Your task to perform on an android device: Search for "macbook air" on bestbuy.com, select the first entry, and add it to the cart. Image 0: 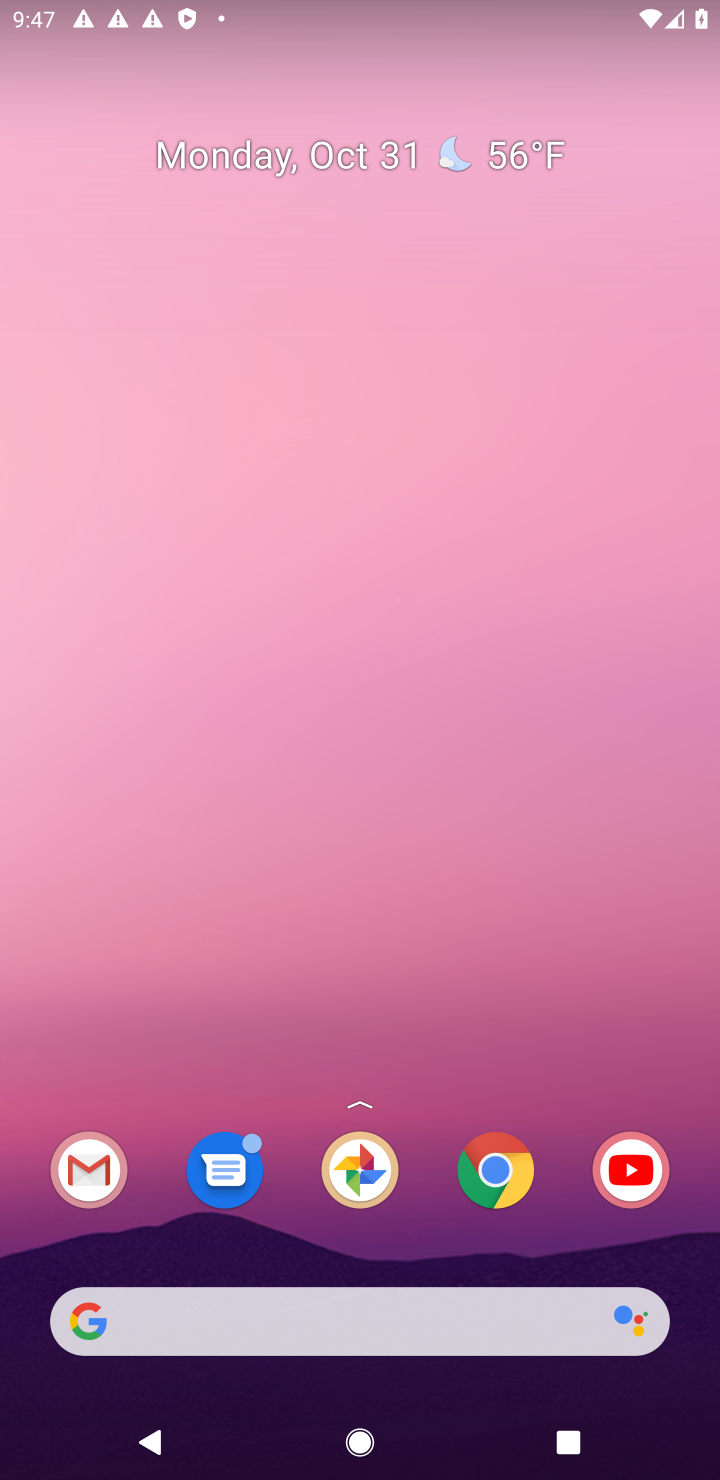
Step 0: click (268, 1302)
Your task to perform on an android device: Search for "macbook air" on bestbuy.com, select the first entry, and add it to the cart. Image 1: 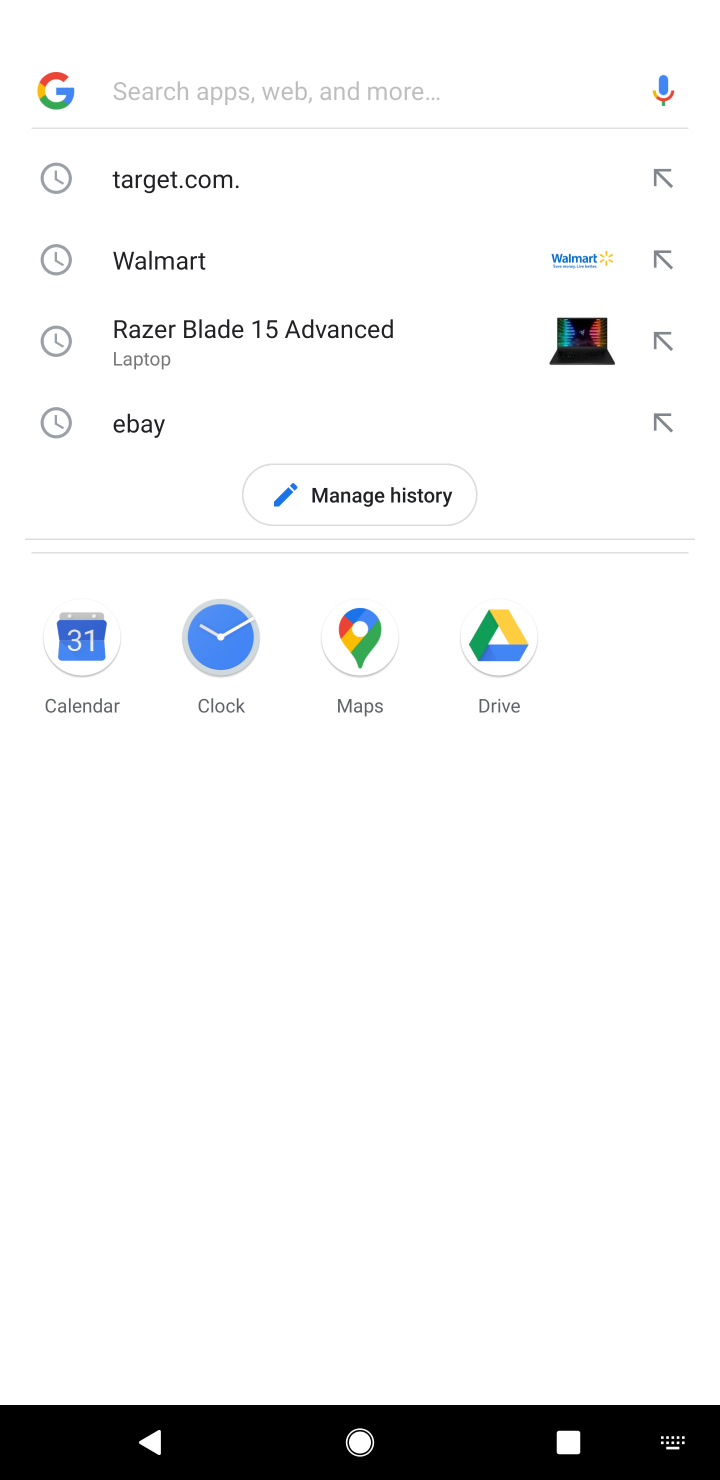
Step 1: type "bestbuy.com"
Your task to perform on an android device: Search for "macbook air" on bestbuy.com, select the first entry, and add it to the cart. Image 2: 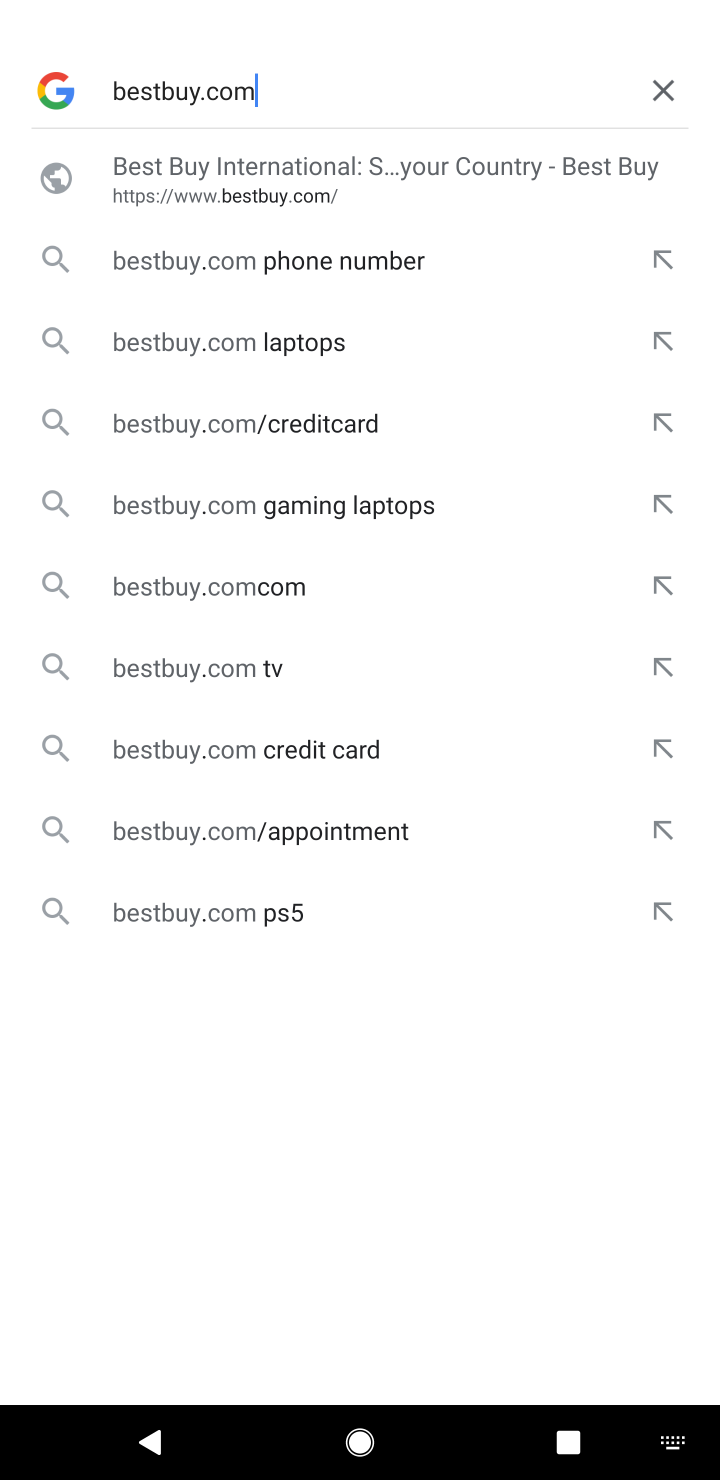
Step 2: click (215, 180)
Your task to perform on an android device: Search for "macbook air" on bestbuy.com, select the first entry, and add it to the cart. Image 3: 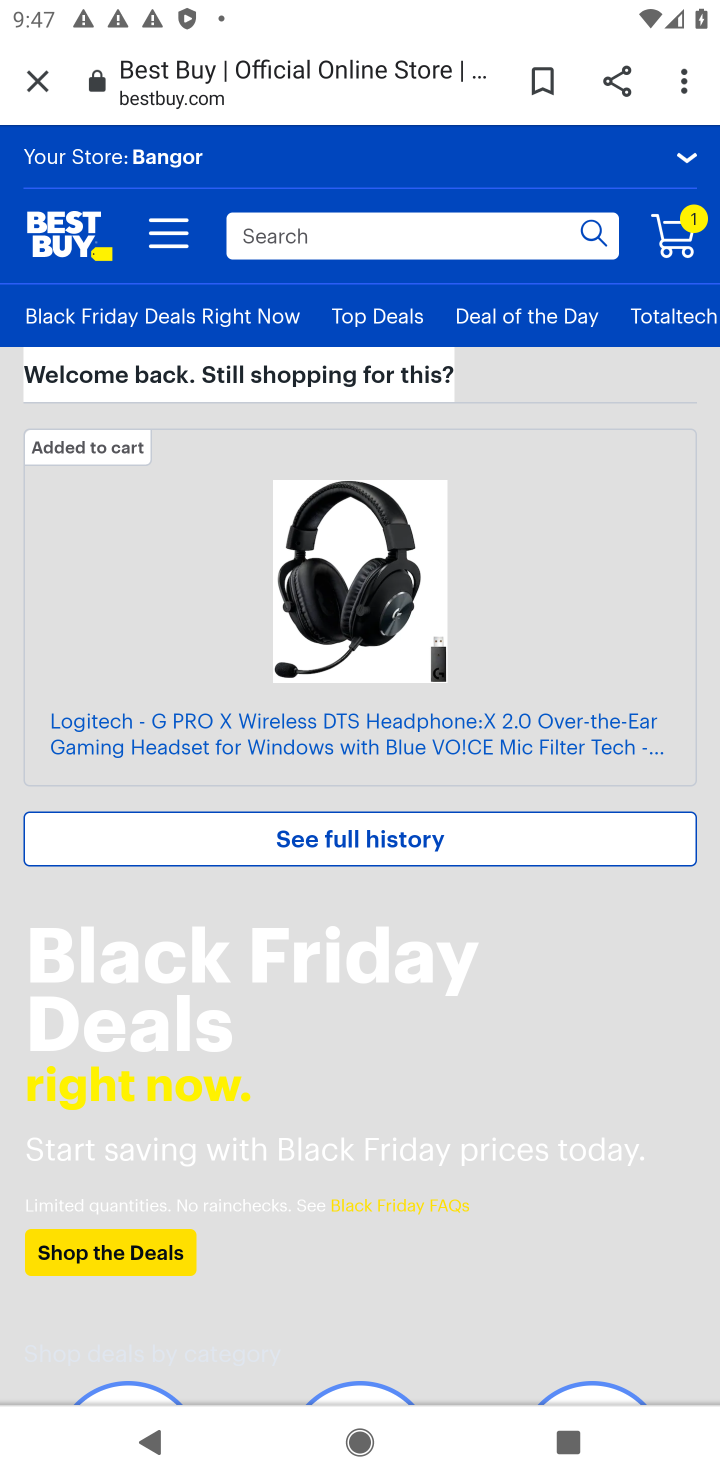
Step 3: click (383, 236)
Your task to perform on an android device: Search for "macbook air" on bestbuy.com, select the first entry, and add it to the cart. Image 4: 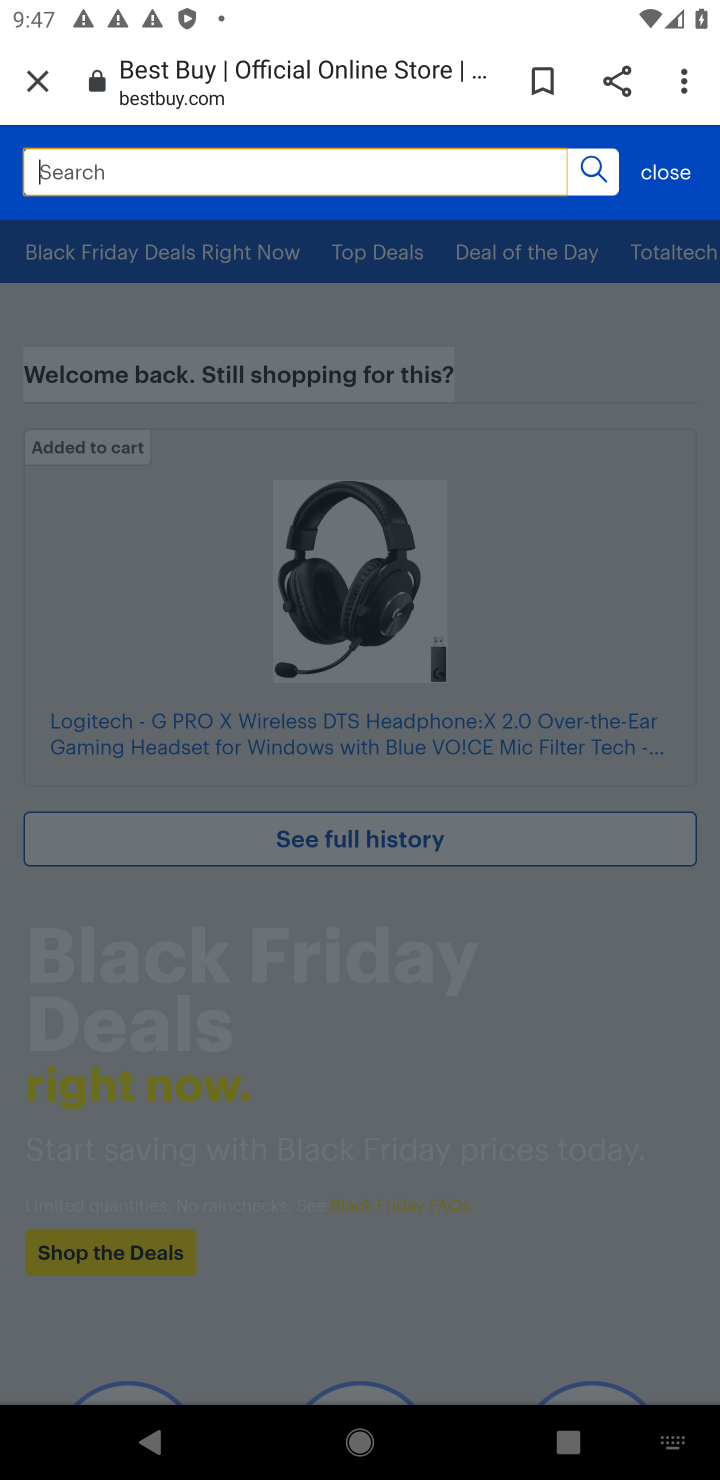
Step 4: type "macbook air"
Your task to perform on an android device: Search for "macbook air" on bestbuy.com, select the first entry, and add it to the cart. Image 5: 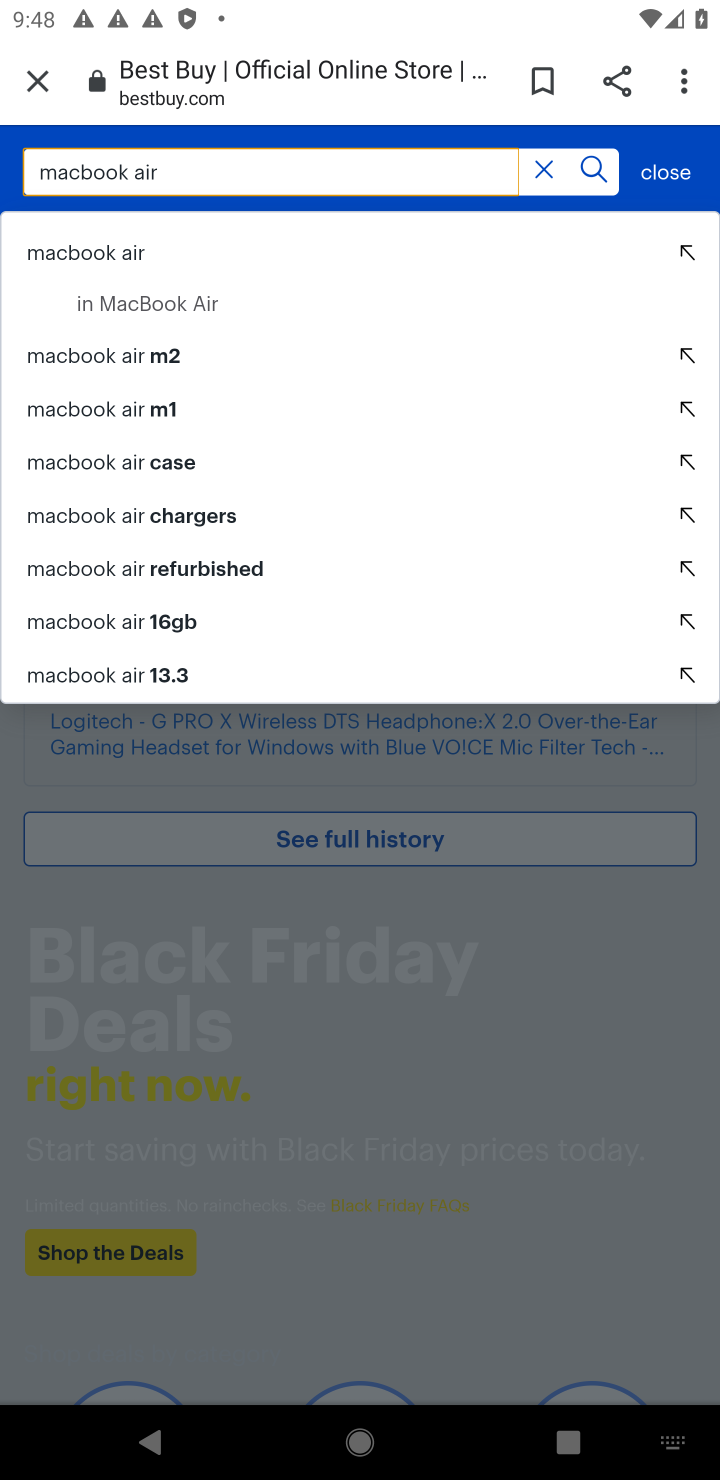
Step 5: click (121, 243)
Your task to perform on an android device: Search for "macbook air" on bestbuy.com, select the first entry, and add it to the cart. Image 6: 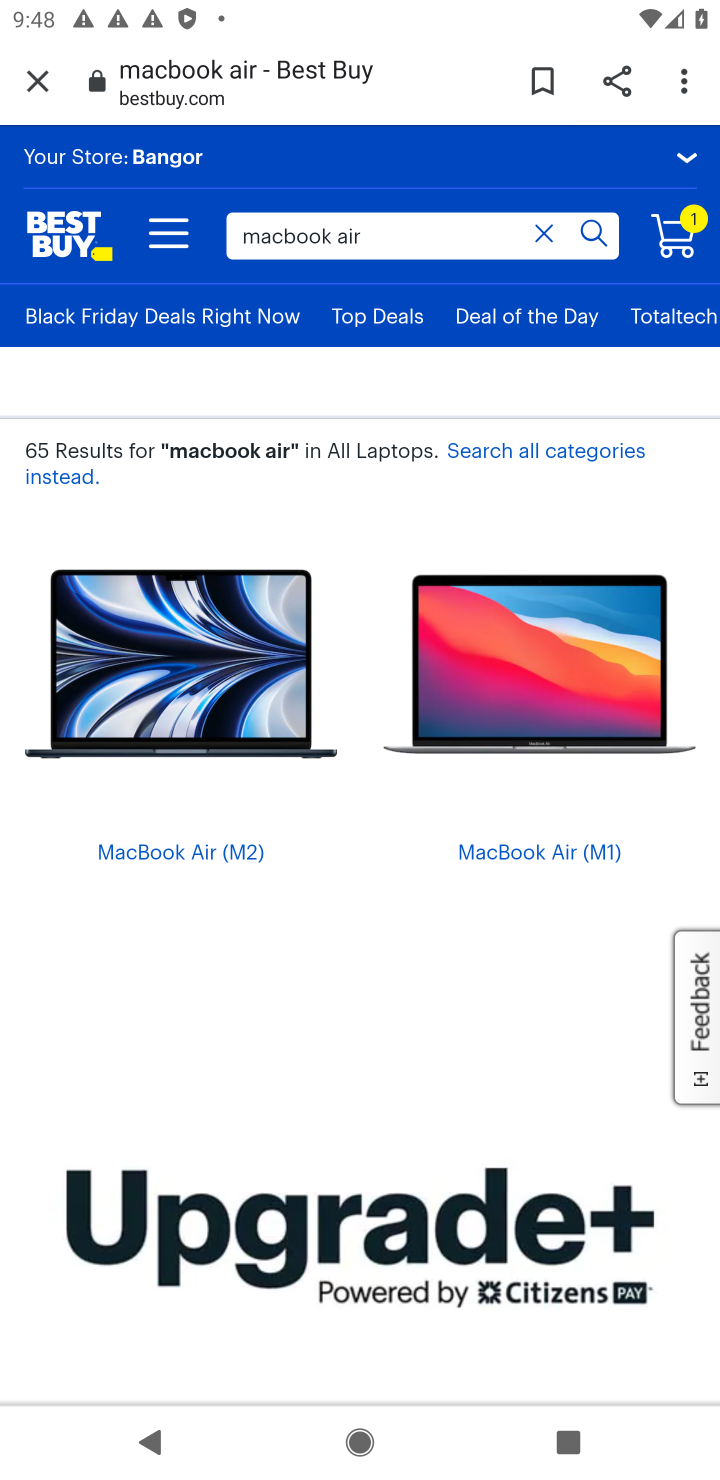
Step 6: click (220, 696)
Your task to perform on an android device: Search for "macbook air" on bestbuy.com, select the first entry, and add it to the cart. Image 7: 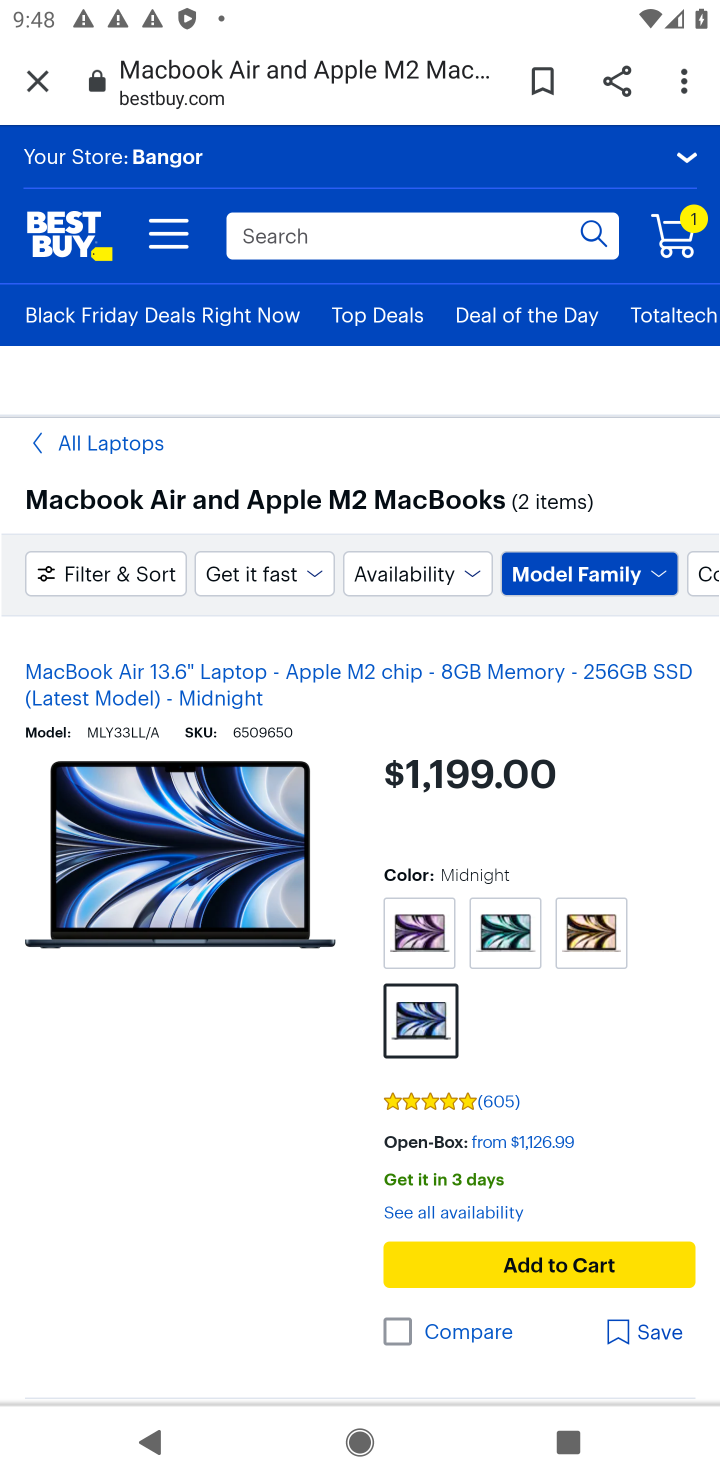
Step 7: click (525, 1208)
Your task to perform on an android device: Search for "macbook air" on bestbuy.com, select the first entry, and add it to the cart. Image 8: 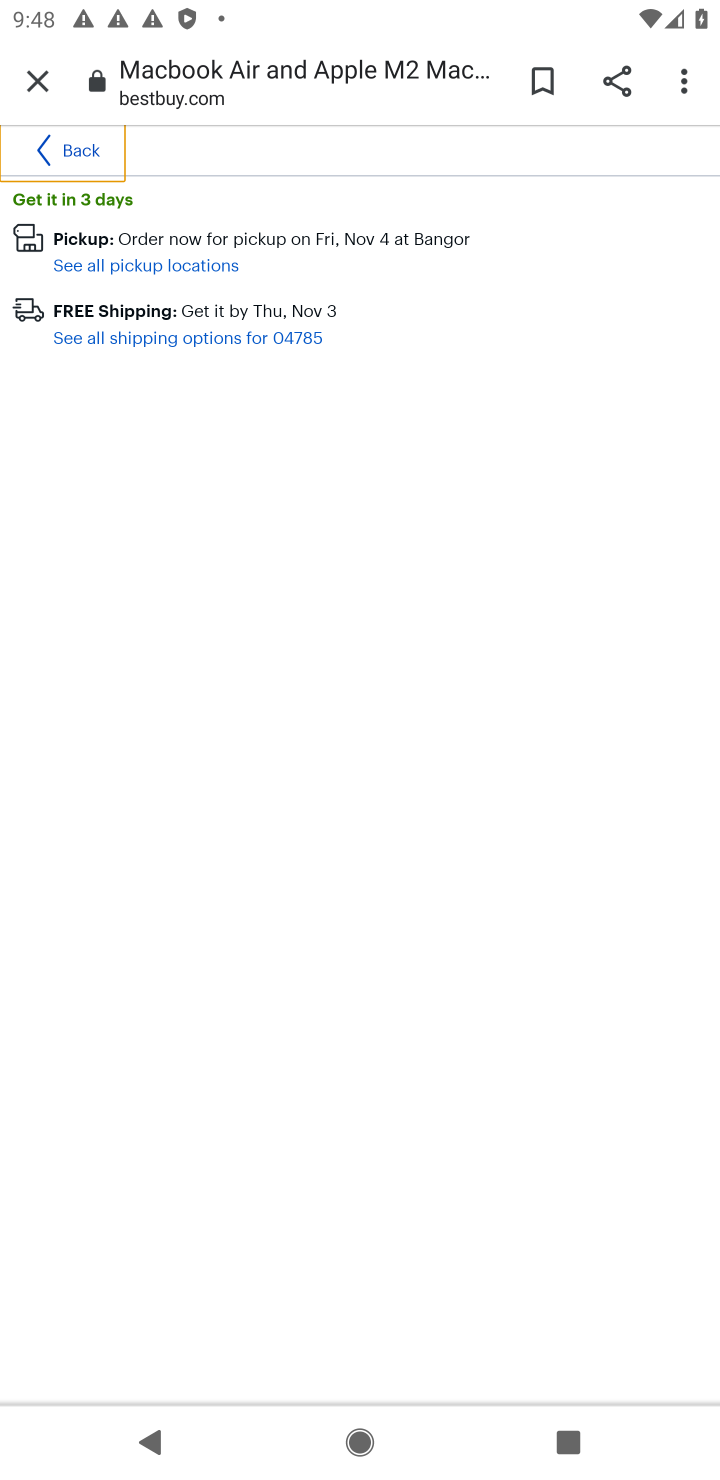
Step 8: click (54, 141)
Your task to perform on an android device: Search for "macbook air" on bestbuy.com, select the first entry, and add it to the cart. Image 9: 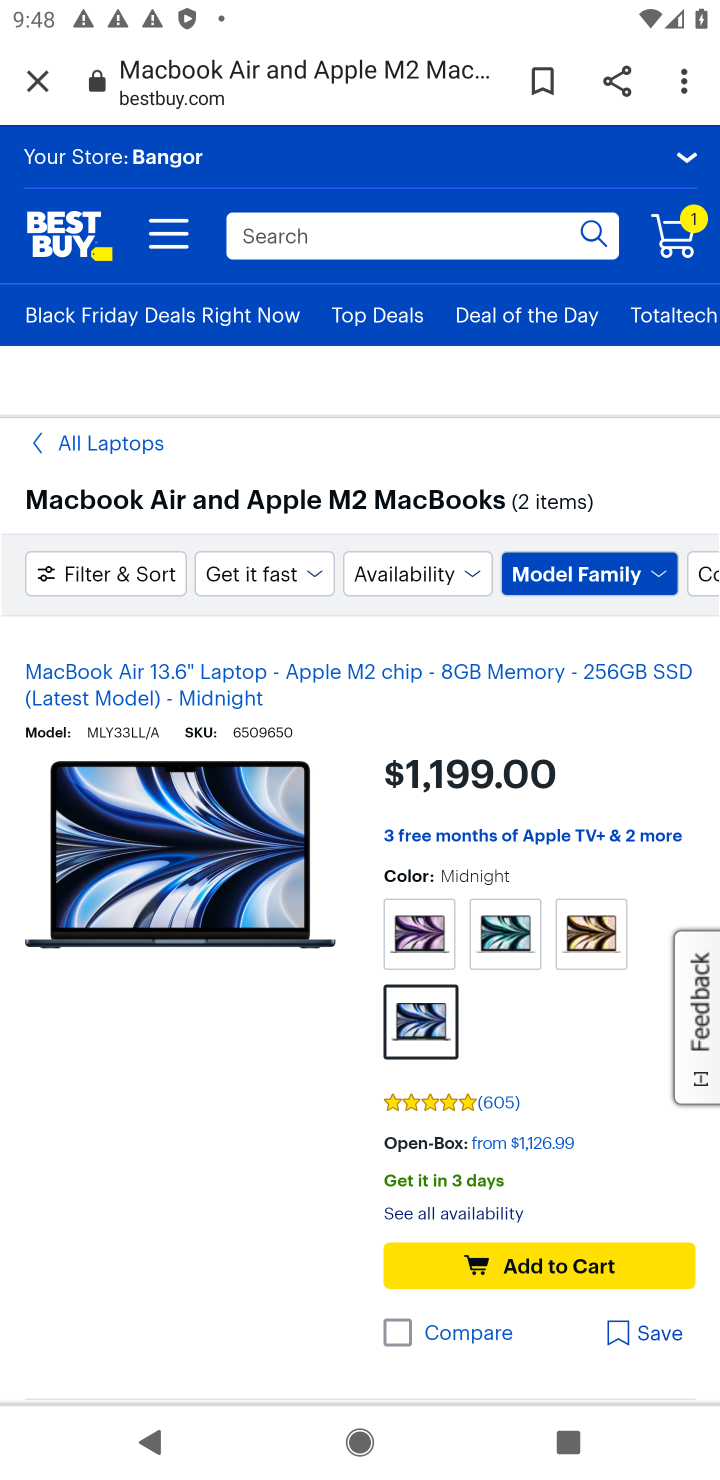
Step 9: click (513, 1262)
Your task to perform on an android device: Search for "macbook air" on bestbuy.com, select the first entry, and add it to the cart. Image 10: 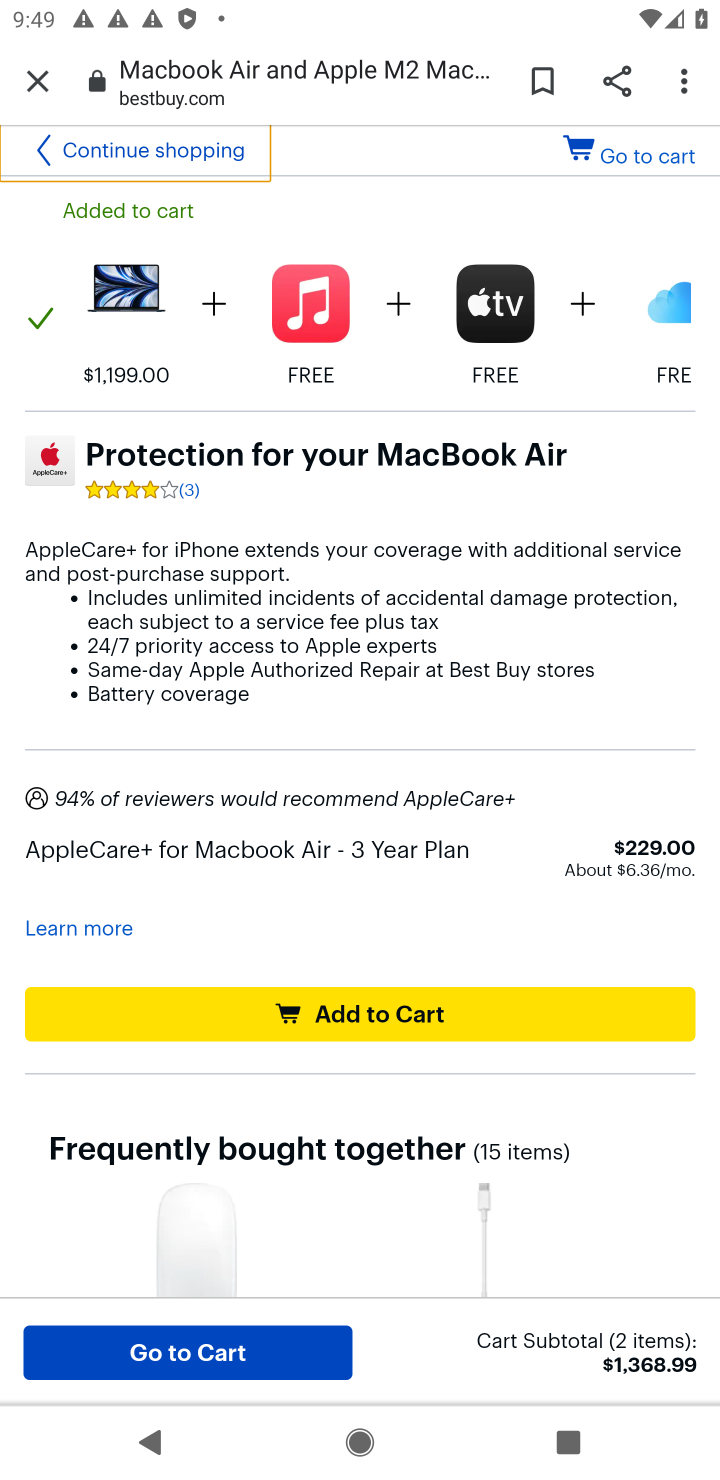
Step 10: task complete